Your task to perform on an android device: Open Google Chrome Image 0: 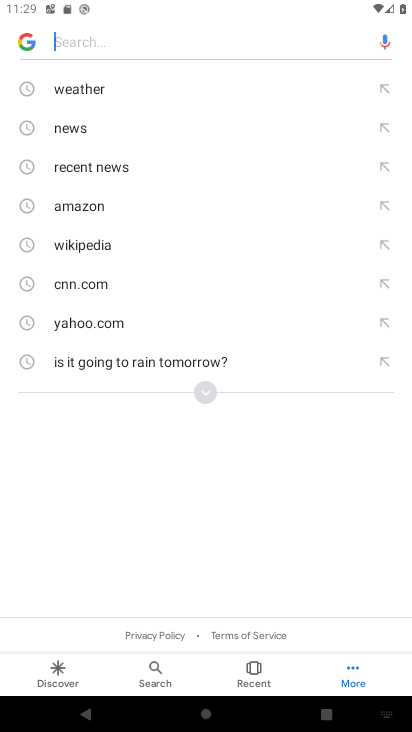
Step 0: press back button
Your task to perform on an android device: Open Google Chrome Image 1: 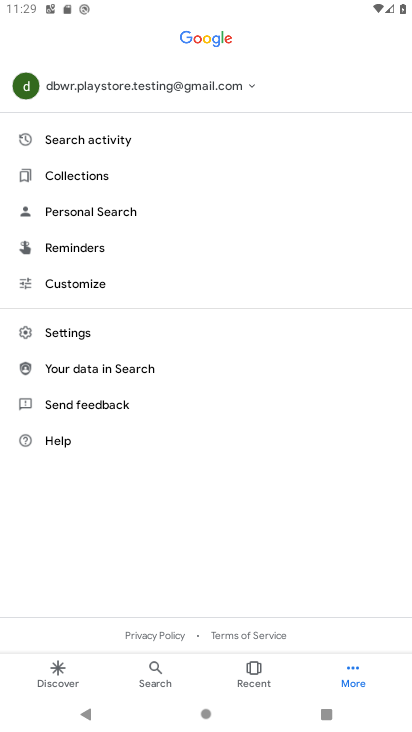
Step 1: task complete